Your task to perform on an android device: Go to Wikipedia Image 0: 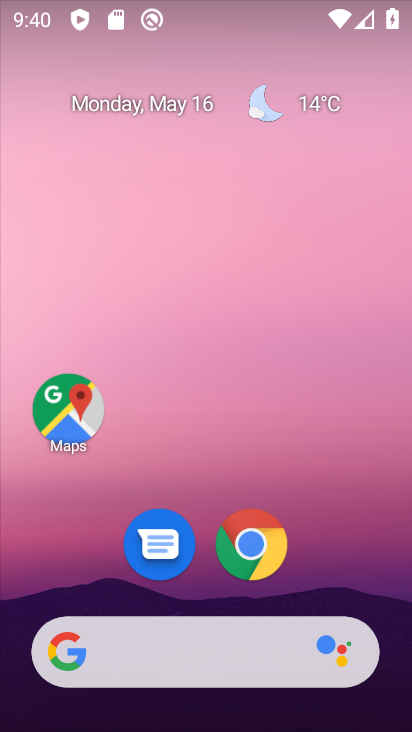
Step 0: click (268, 560)
Your task to perform on an android device: Go to Wikipedia Image 1: 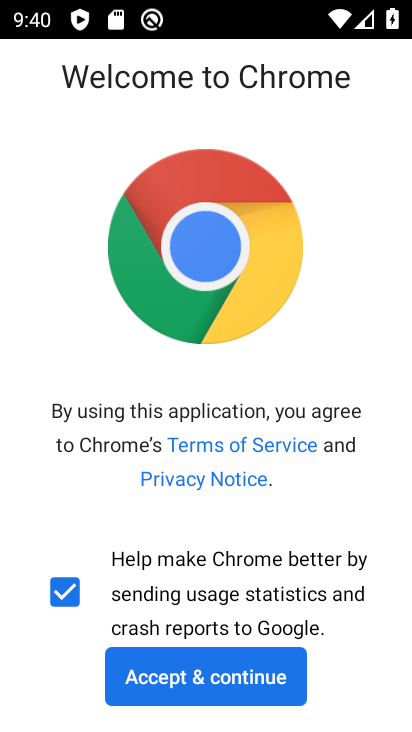
Step 1: click (263, 690)
Your task to perform on an android device: Go to Wikipedia Image 2: 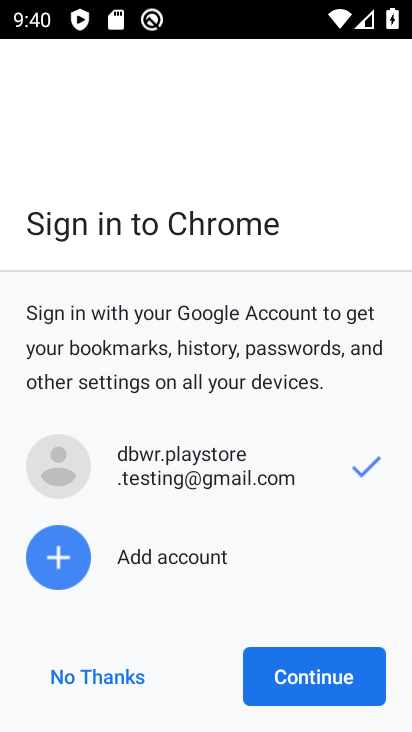
Step 2: click (289, 683)
Your task to perform on an android device: Go to Wikipedia Image 3: 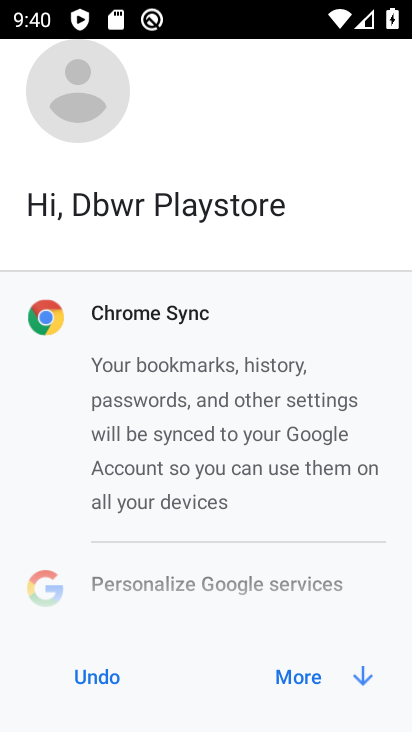
Step 3: click (289, 683)
Your task to perform on an android device: Go to Wikipedia Image 4: 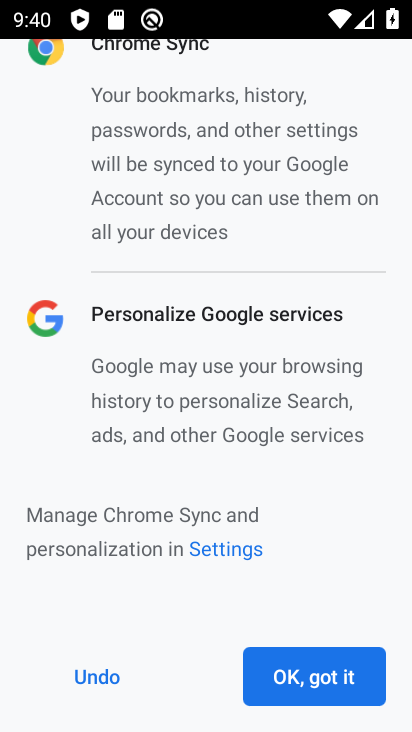
Step 4: click (293, 689)
Your task to perform on an android device: Go to Wikipedia Image 5: 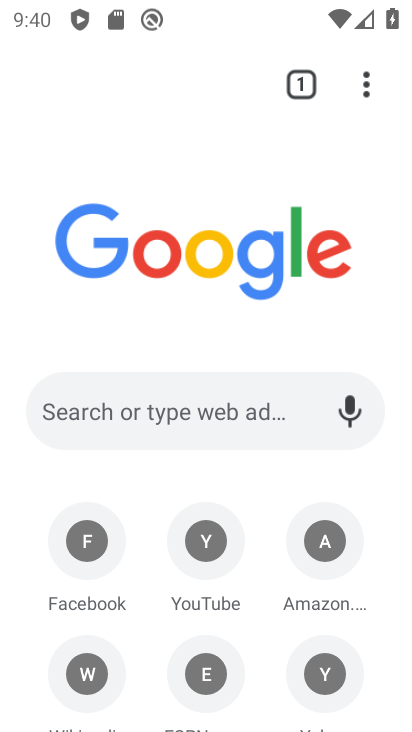
Step 5: click (176, 81)
Your task to perform on an android device: Go to Wikipedia Image 6: 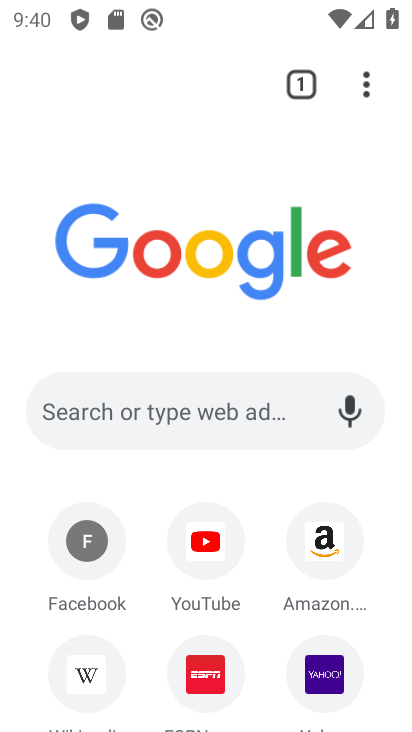
Step 6: click (210, 414)
Your task to perform on an android device: Go to Wikipedia Image 7: 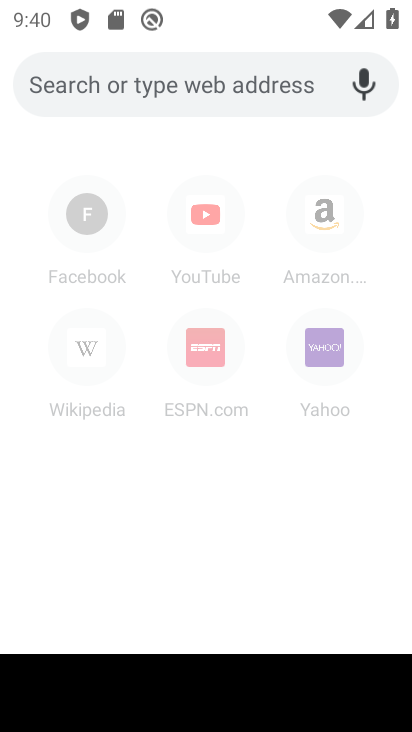
Step 7: click (101, 346)
Your task to perform on an android device: Go to Wikipedia Image 8: 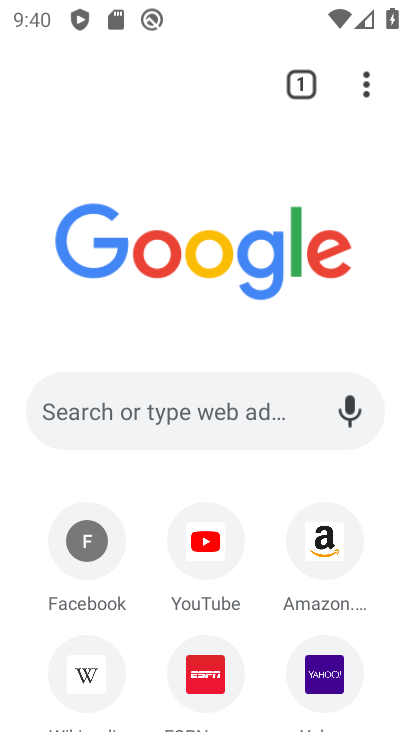
Step 8: click (92, 651)
Your task to perform on an android device: Go to Wikipedia Image 9: 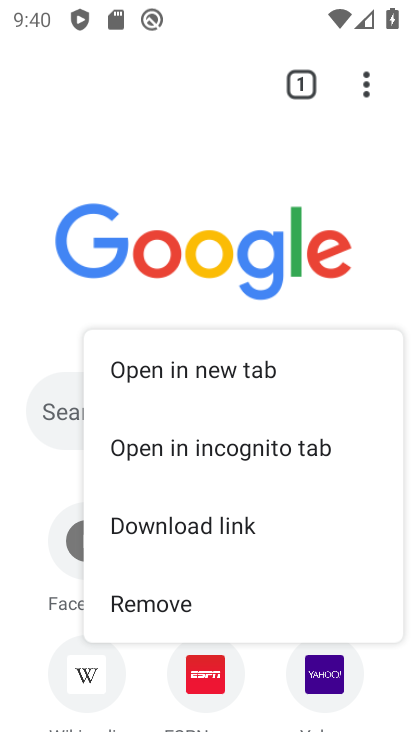
Step 9: click (77, 676)
Your task to perform on an android device: Go to Wikipedia Image 10: 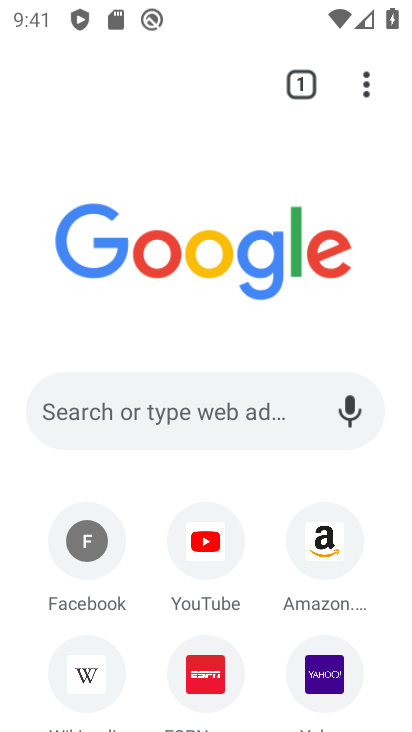
Step 10: click (85, 679)
Your task to perform on an android device: Go to Wikipedia Image 11: 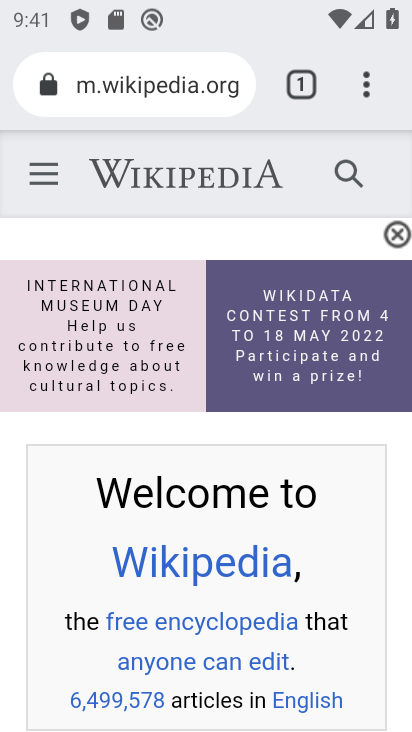
Step 11: task complete